Your task to perform on an android device: Search for seafood restaurants on Google Maps Image 0: 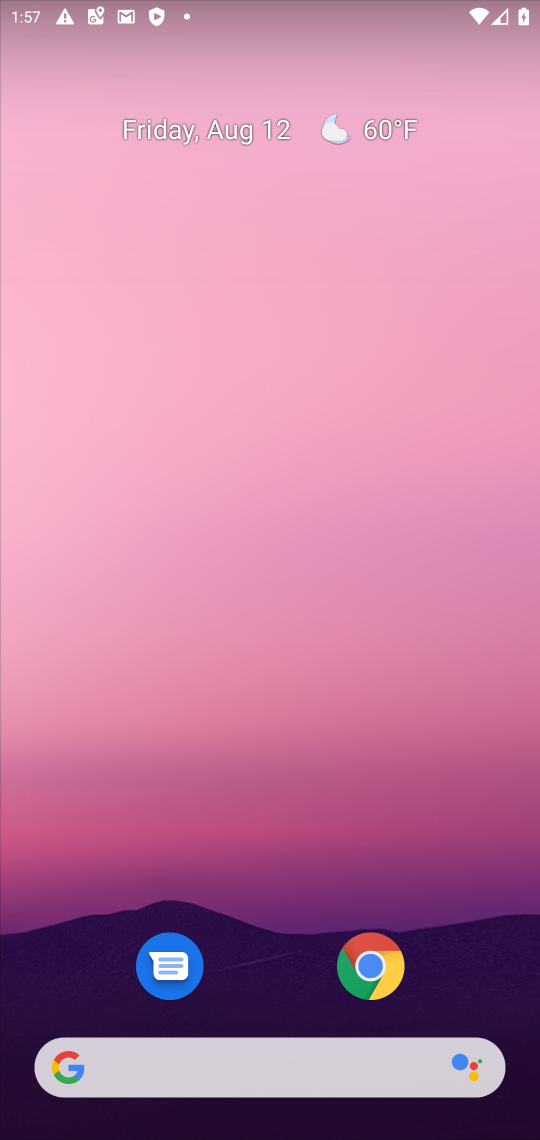
Step 0: click (391, 97)
Your task to perform on an android device: Search for seafood restaurants on Google Maps Image 1: 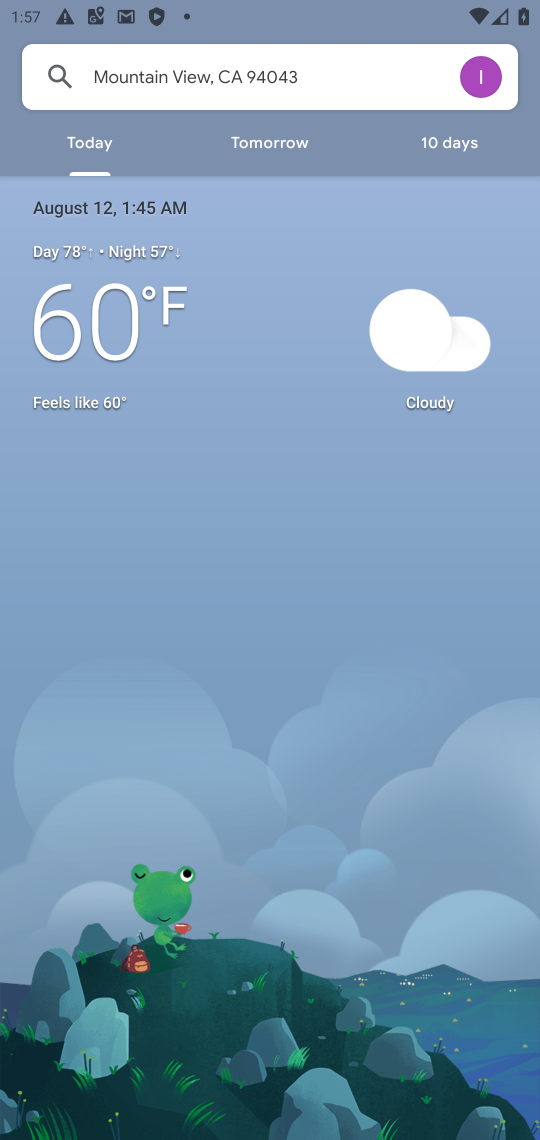
Step 1: press home button
Your task to perform on an android device: Search for seafood restaurants on Google Maps Image 2: 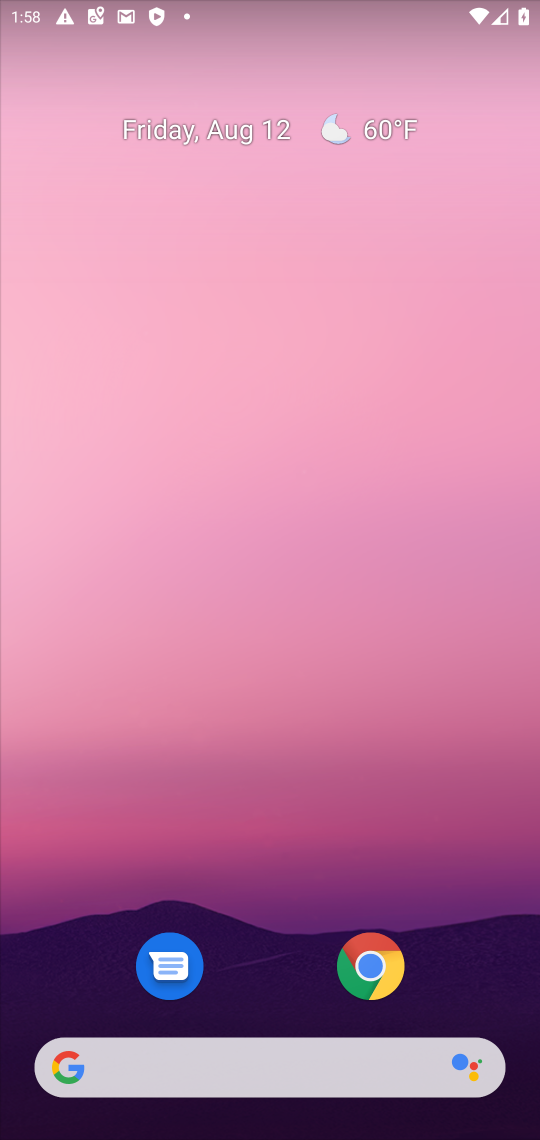
Step 2: drag from (265, 784) to (367, 146)
Your task to perform on an android device: Search for seafood restaurants on Google Maps Image 3: 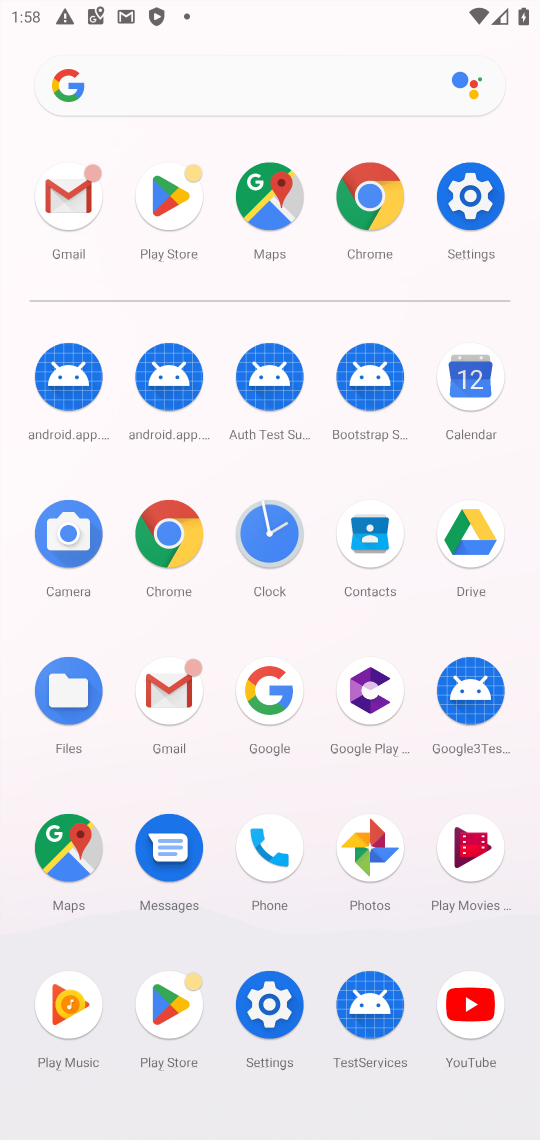
Step 3: click (61, 836)
Your task to perform on an android device: Search for seafood restaurants on Google Maps Image 4: 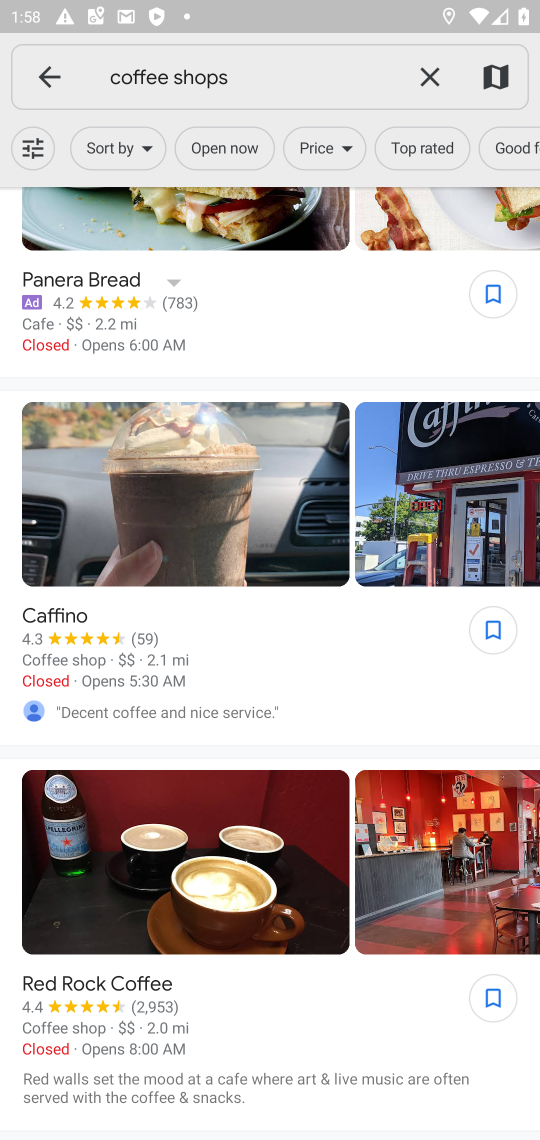
Step 4: click (419, 72)
Your task to perform on an android device: Search for seafood restaurants on Google Maps Image 5: 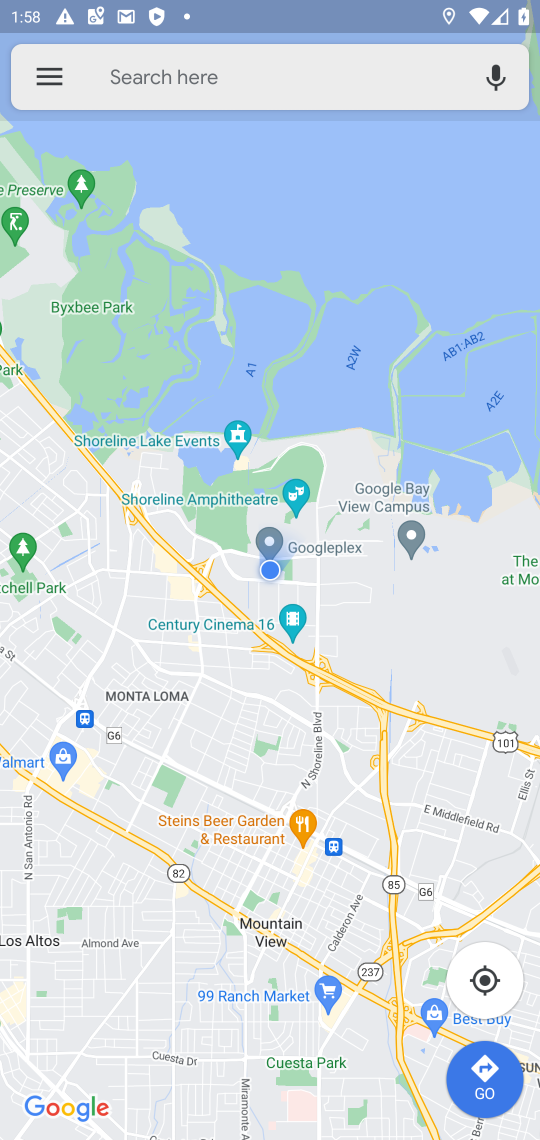
Step 5: click (192, 76)
Your task to perform on an android device: Search for seafood restaurants on Google Maps Image 6: 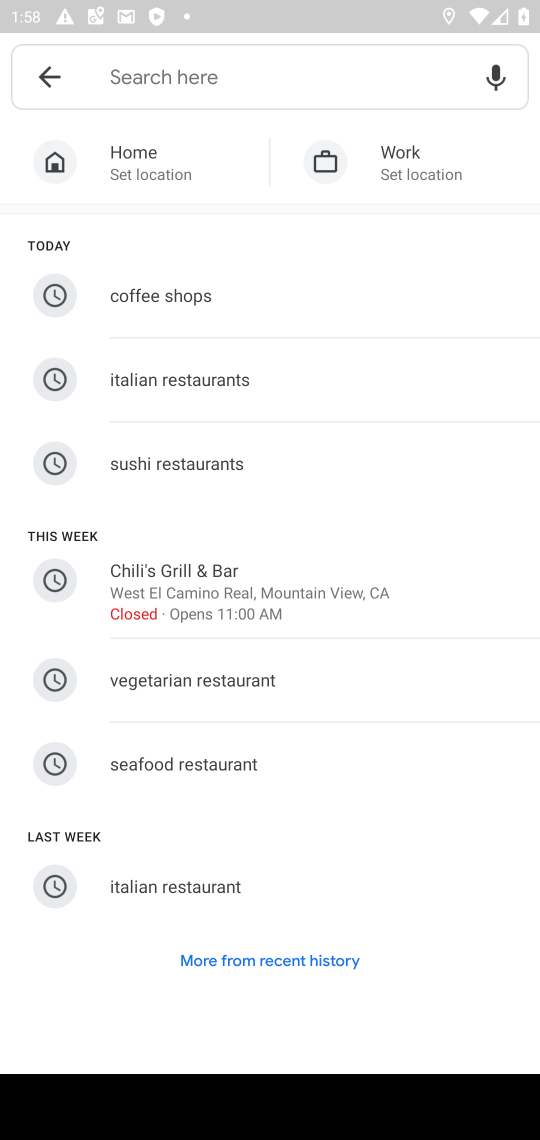
Step 6: type "seafood restaurents"
Your task to perform on an android device: Search for seafood restaurants on Google Maps Image 7: 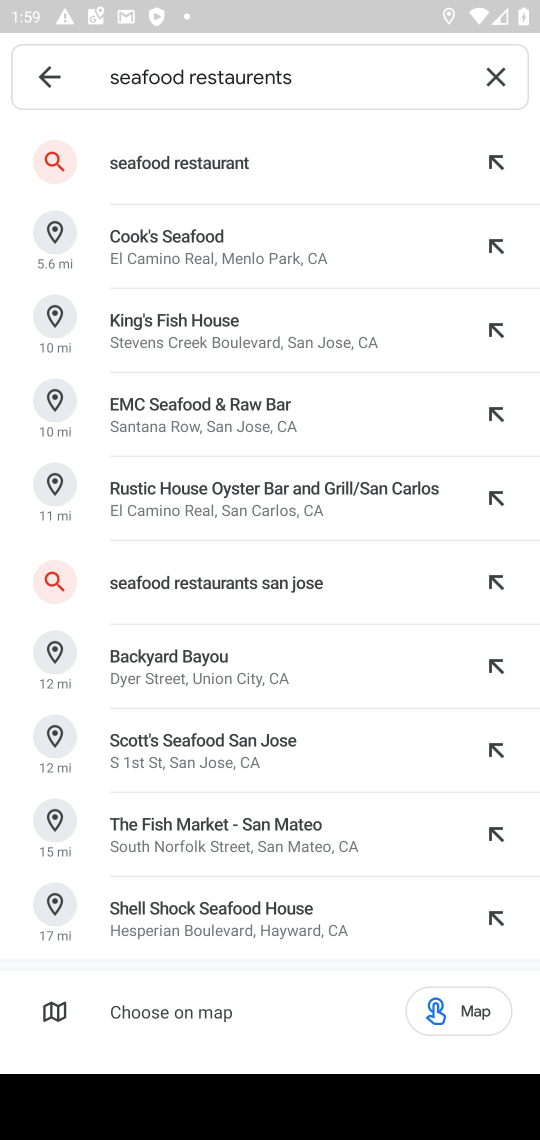
Step 7: press enter
Your task to perform on an android device: Search for seafood restaurants on Google Maps Image 8: 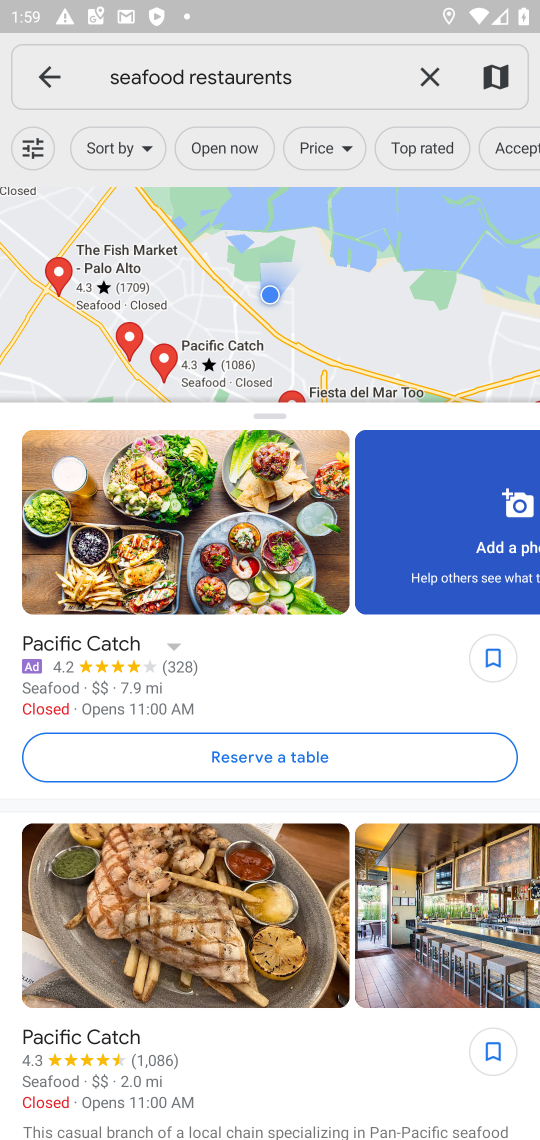
Step 8: task complete